Your task to perform on an android device: Open location settings Image 0: 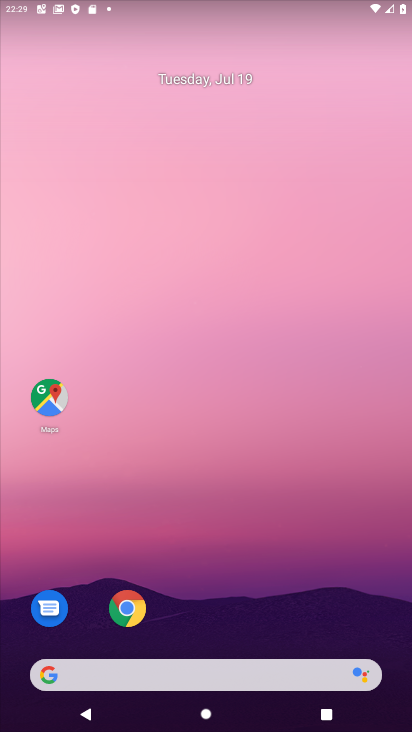
Step 0: drag from (312, 549) to (309, 80)
Your task to perform on an android device: Open location settings Image 1: 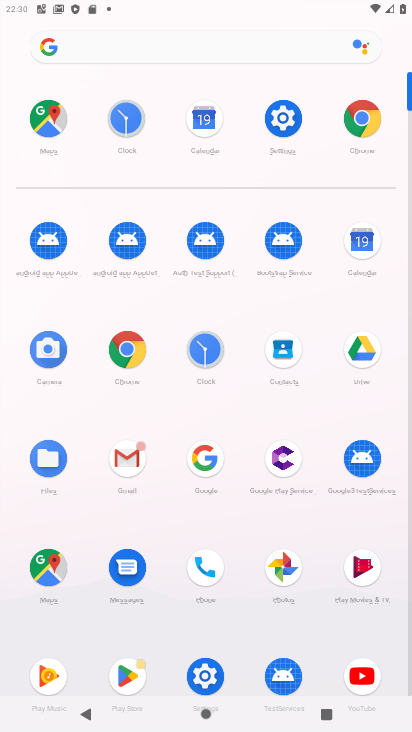
Step 1: click (285, 113)
Your task to perform on an android device: Open location settings Image 2: 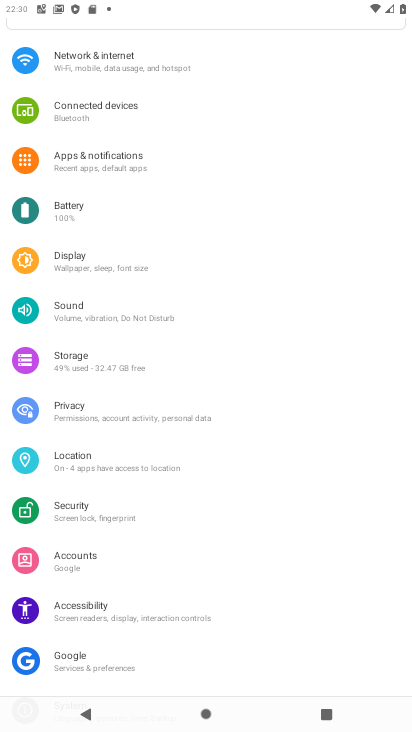
Step 2: click (110, 469)
Your task to perform on an android device: Open location settings Image 3: 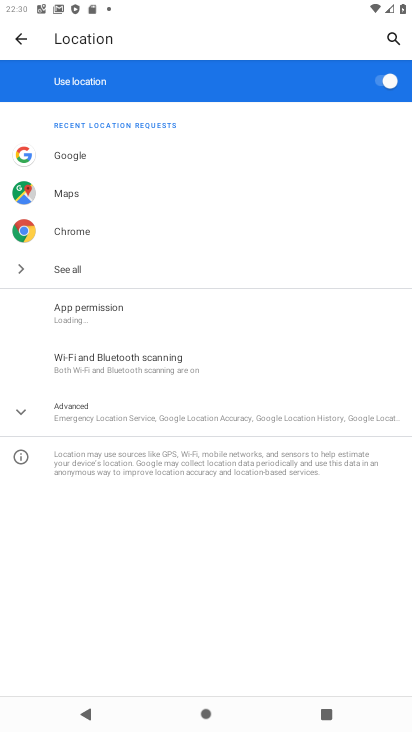
Step 3: task complete